Your task to perform on an android device: Is it going to rain this weekend? Image 0: 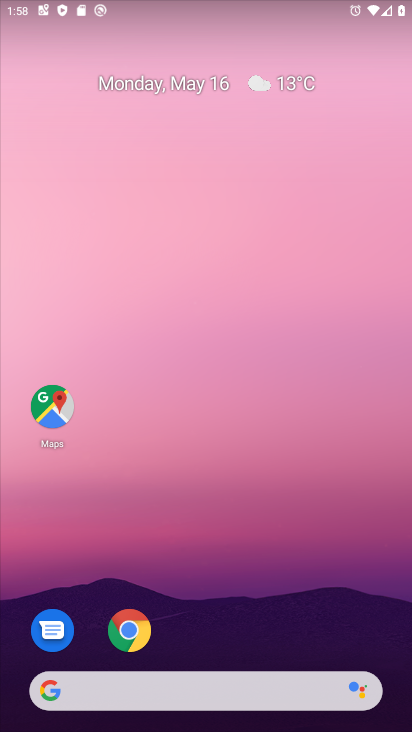
Step 0: drag from (378, 478) to (349, 5)
Your task to perform on an android device: Is it going to rain this weekend? Image 1: 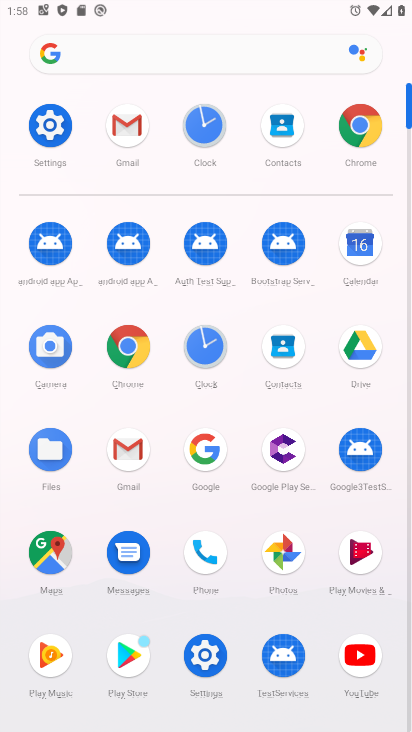
Step 1: click (214, 453)
Your task to perform on an android device: Is it going to rain this weekend? Image 2: 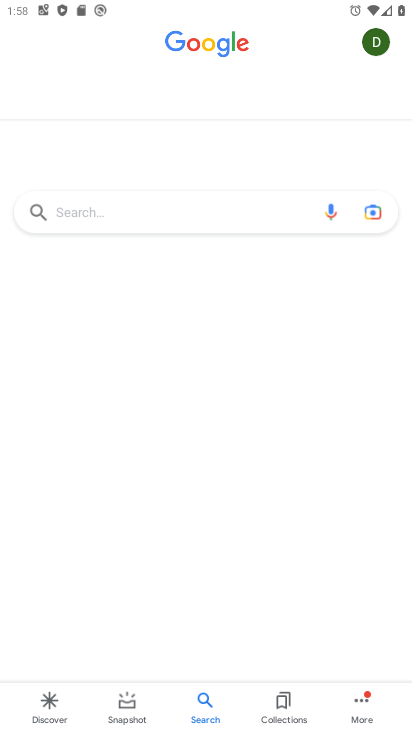
Step 2: click (172, 215)
Your task to perform on an android device: Is it going to rain this weekend? Image 3: 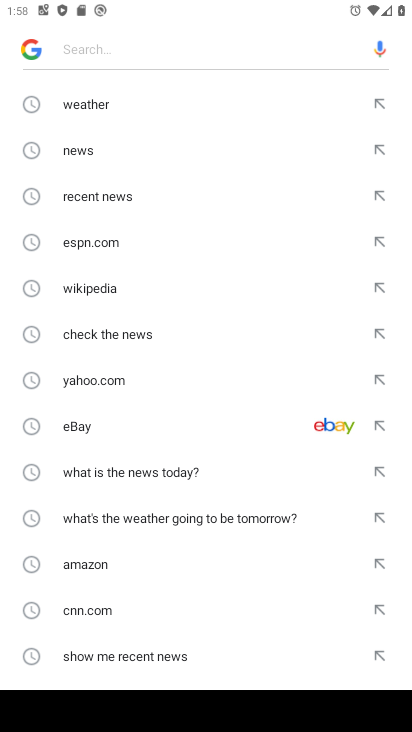
Step 3: click (147, 115)
Your task to perform on an android device: Is it going to rain this weekend? Image 4: 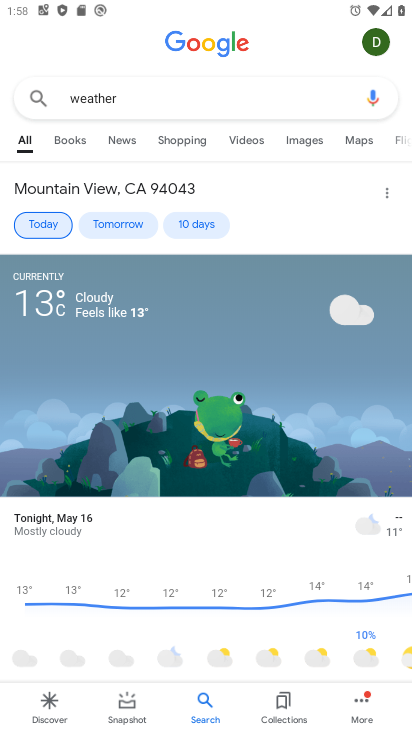
Step 4: click (183, 218)
Your task to perform on an android device: Is it going to rain this weekend? Image 5: 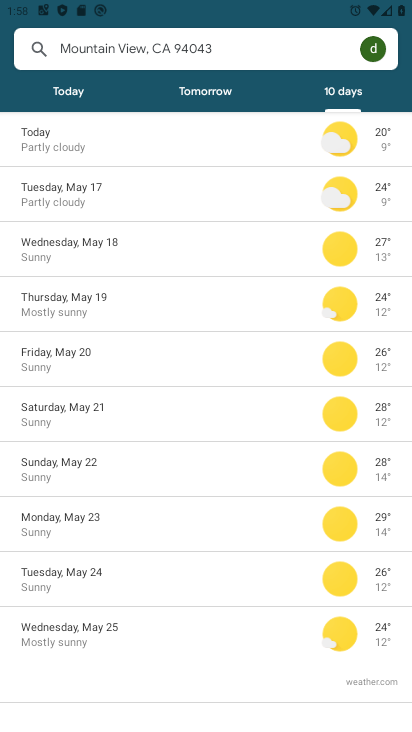
Step 5: task complete